Your task to perform on an android device: What is the news today? Image 0: 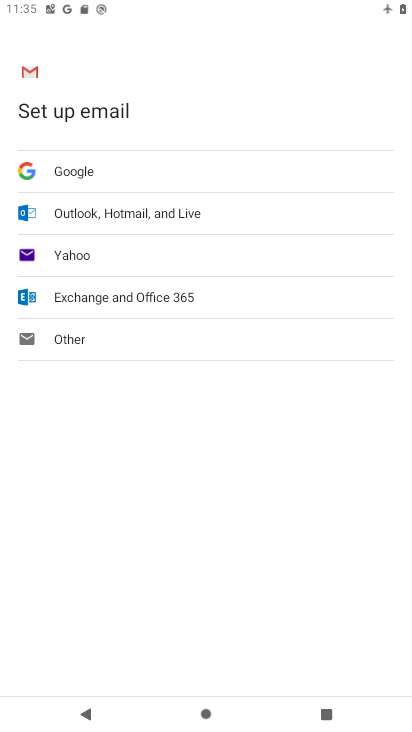
Step 0: press home button
Your task to perform on an android device: What is the news today? Image 1: 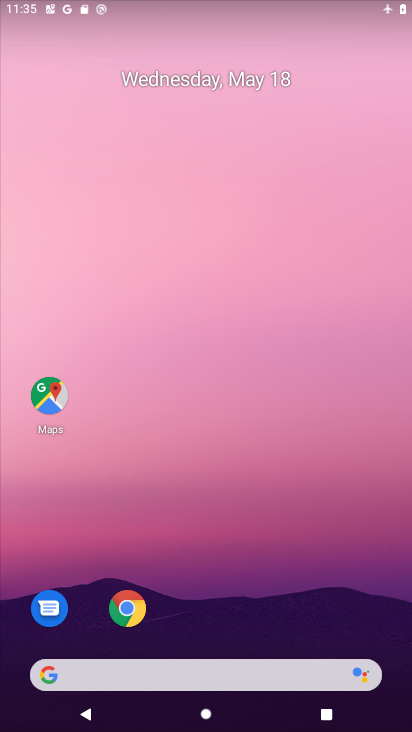
Step 1: click (130, 617)
Your task to perform on an android device: What is the news today? Image 2: 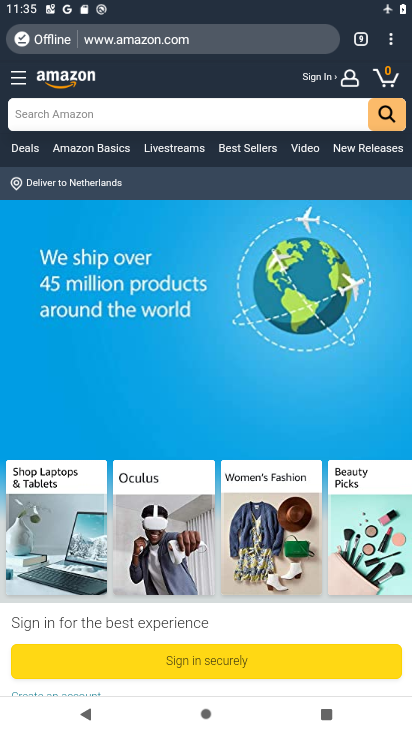
Step 2: click (356, 40)
Your task to perform on an android device: What is the news today? Image 3: 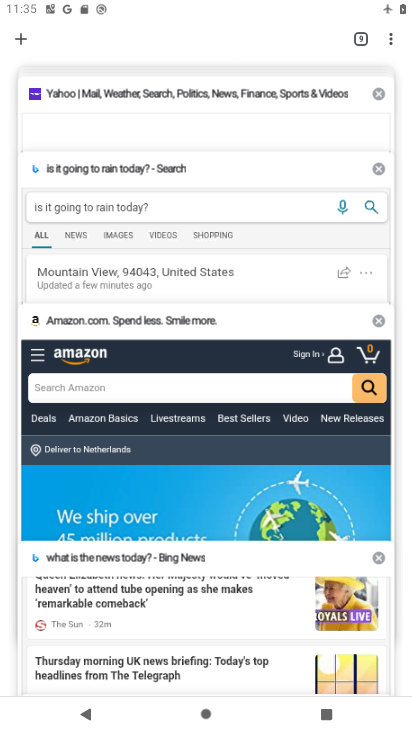
Step 3: click (158, 591)
Your task to perform on an android device: What is the news today? Image 4: 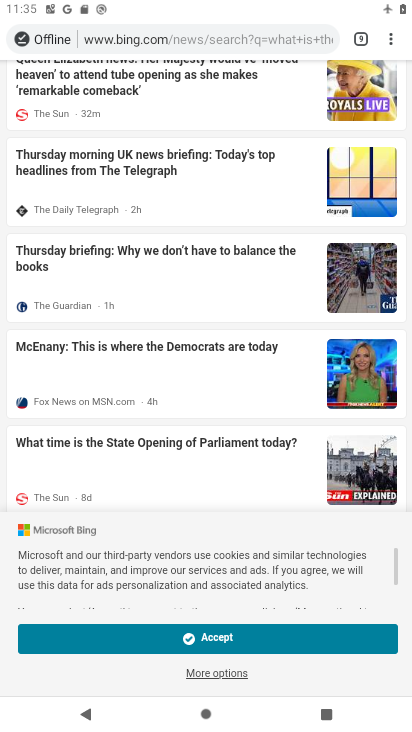
Step 4: task complete